Your task to perform on an android device: Is it going to rain today? Image 0: 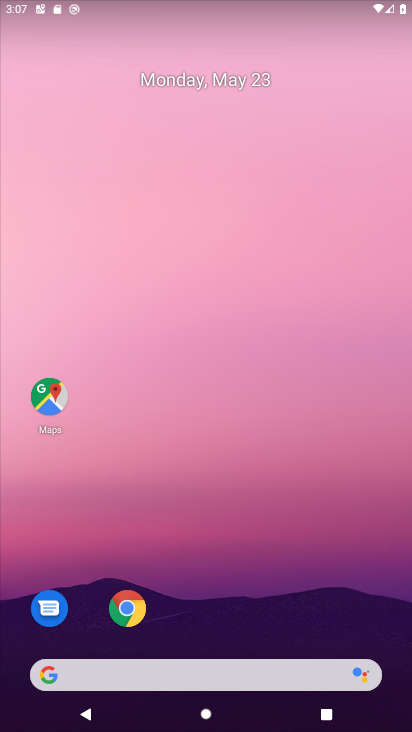
Step 0: drag from (210, 266) to (211, 53)
Your task to perform on an android device: Is it going to rain today? Image 1: 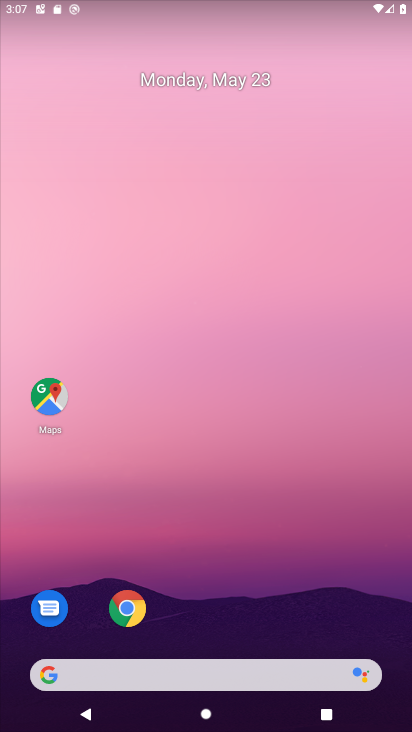
Step 1: drag from (230, 635) to (210, 21)
Your task to perform on an android device: Is it going to rain today? Image 2: 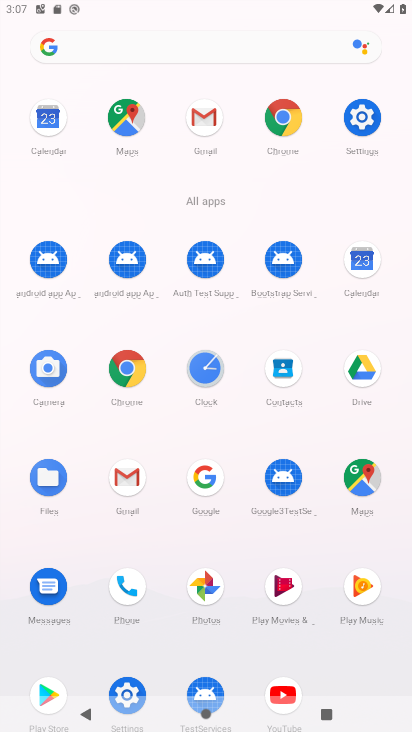
Step 2: click (286, 102)
Your task to perform on an android device: Is it going to rain today? Image 3: 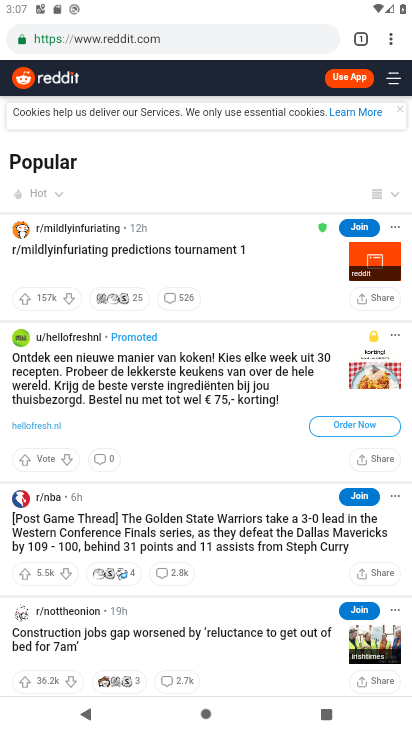
Step 3: click (183, 42)
Your task to perform on an android device: Is it going to rain today? Image 4: 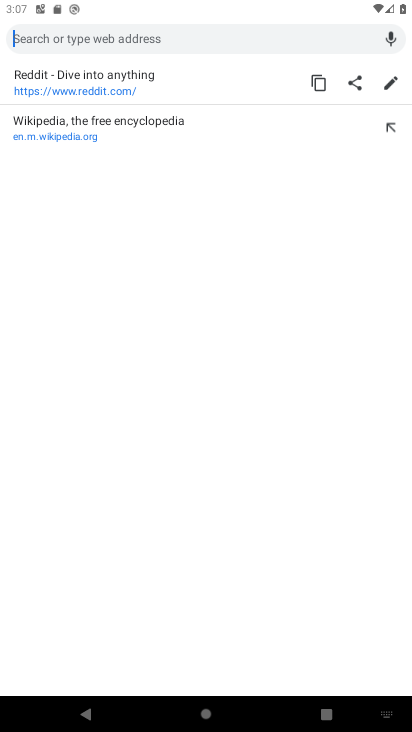
Step 4: type "Is it going to rain today?"
Your task to perform on an android device: Is it going to rain today? Image 5: 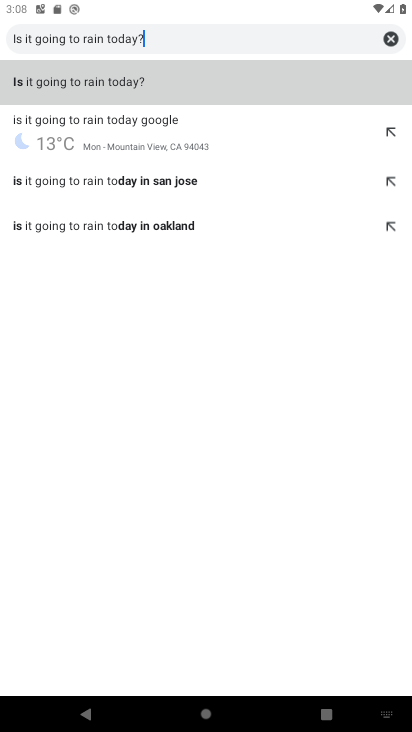
Step 5: click (50, 78)
Your task to perform on an android device: Is it going to rain today? Image 6: 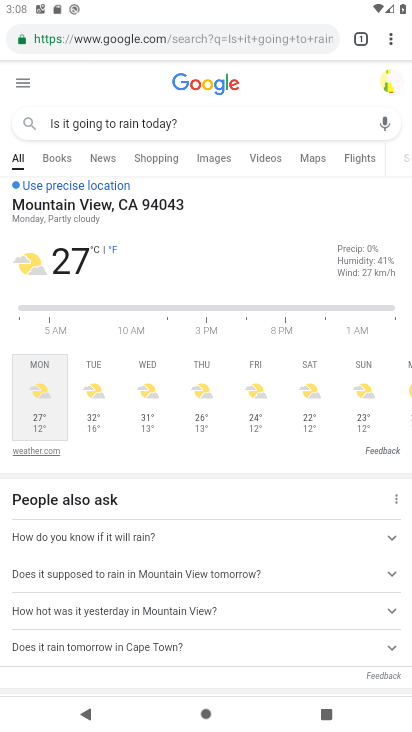
Step 6: task complete